Your task to perform on an android device: turn notification dots on Image 0: 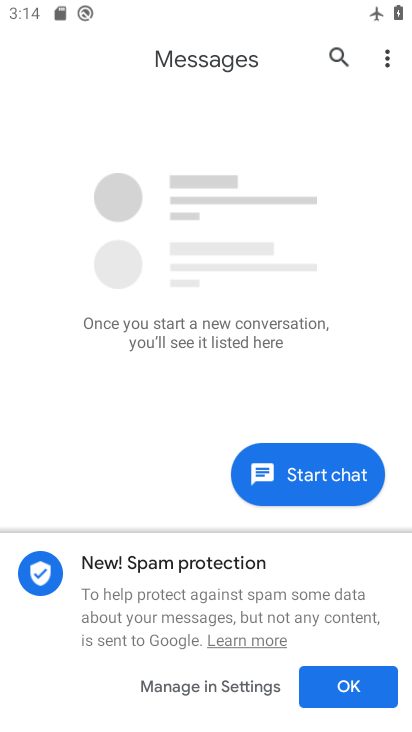
Step 0: press home button
Your task to perform on an android device: turn notification dots on Image 1: 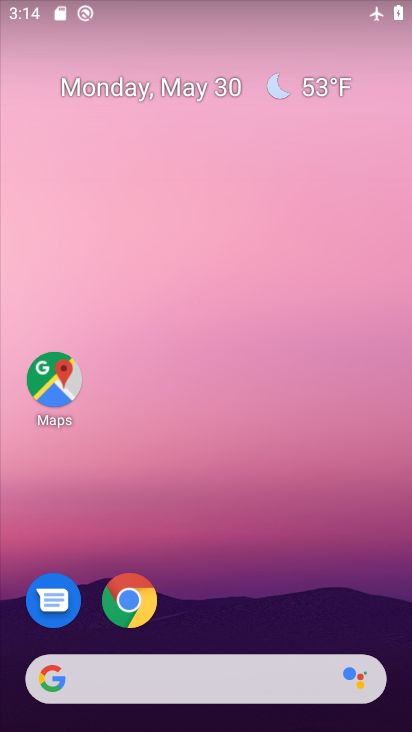
Step 1: drag from (248, 518) to (190, 7)
Your task to perform on an android device: turn notification dots on Image 2: 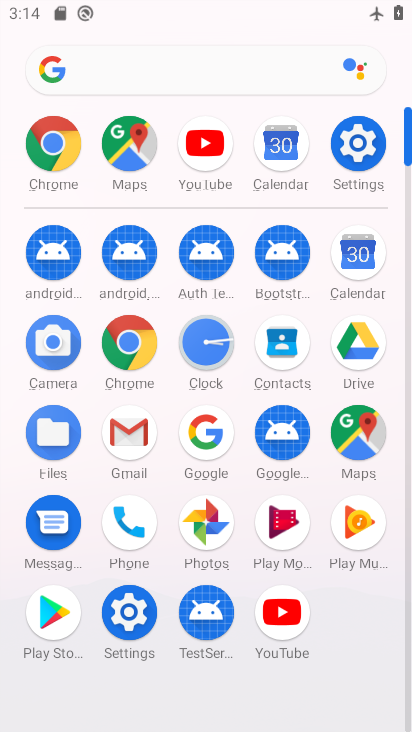
Step 2: click (372, 149)
Your task to perform on an android device: turn notification dots on Image 3: 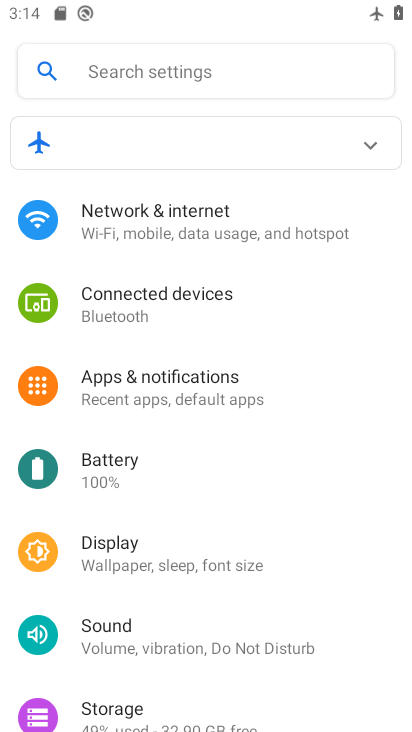
Step 3: click (187, 393)
Your task to perform on an android device: turn notification dots on Image 4: 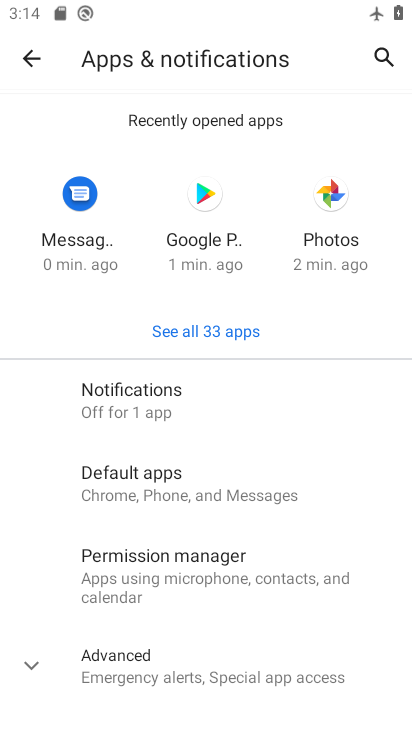
Step 4: click (168, 406)
Your task to perform on an android device: turn notification dots on Image 5: 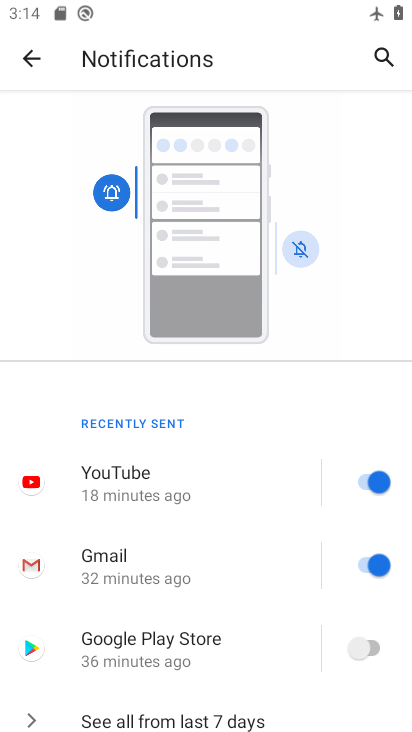
Step 5: drag from (184, 602) to (168, 291)
Your task to perform on an android device: turn notification dots on Image 6: 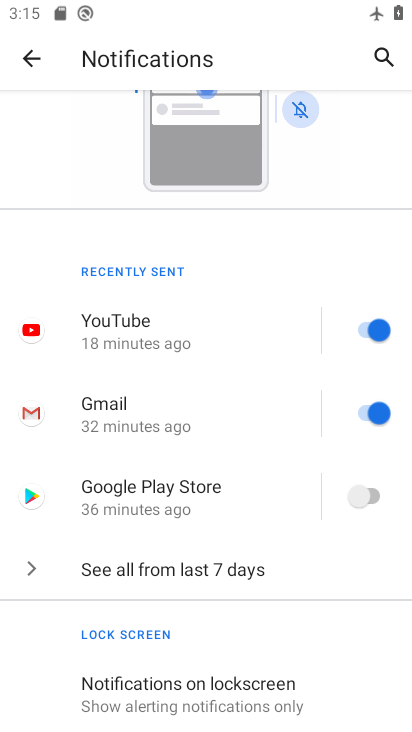
Step 6: drag from (180, 647) to (236, 330)
Your task to perform on an android device: turn notification dots on Image 7: 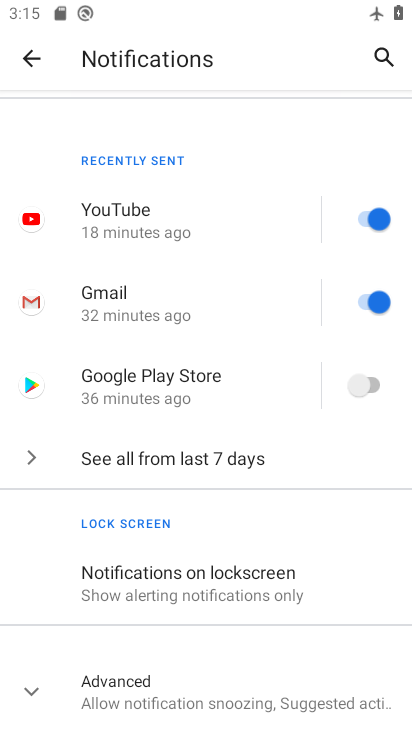
Step 7: drag from (255, 703) to (223, 315)
Your task to perform on an android device: turn notification dots on Image 8: 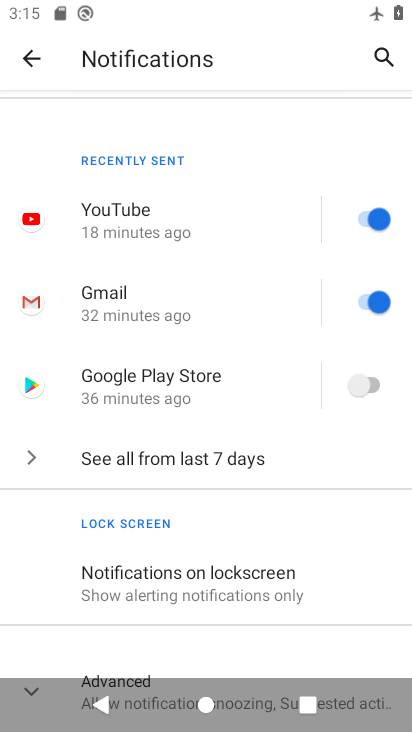
Step 8: click (201, 644)
Your task to perform on an android device: turn notification dots on Image 9: 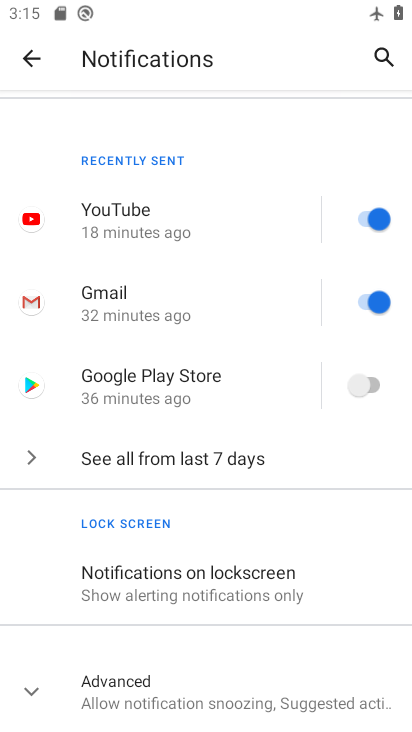
Step 9: click (106, 689)
Your task to perform on an android device: turn notification dots on Image 10: 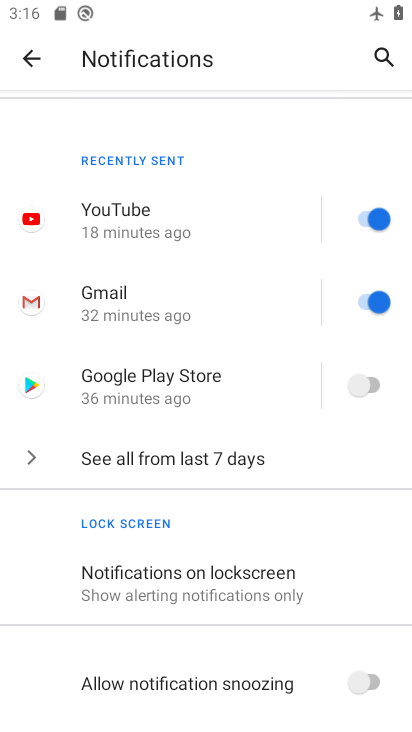
Step 10: task complete